Your task to perform on an android device: add a contact Image 0: 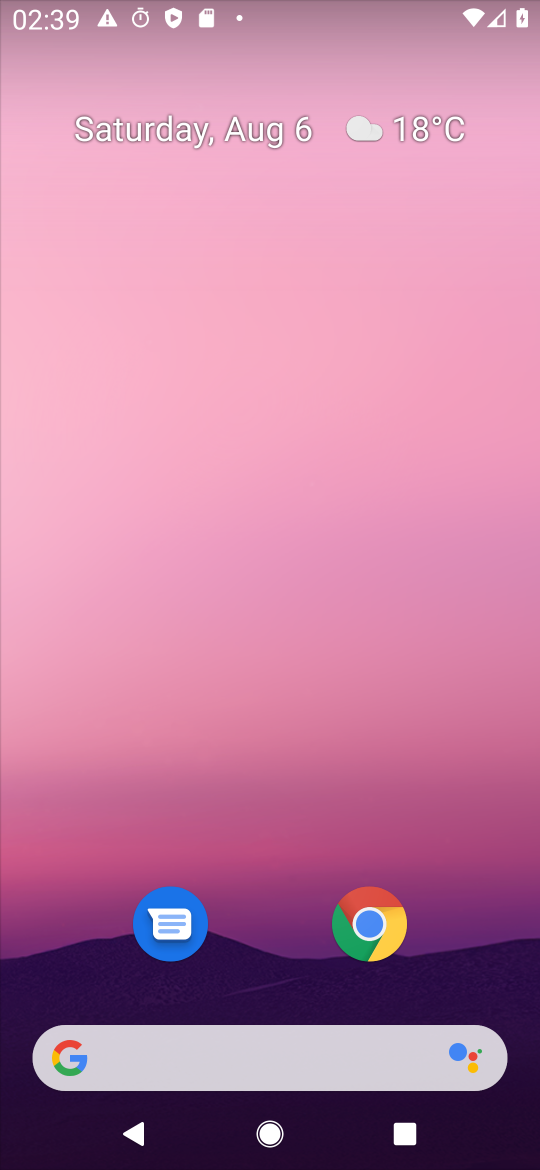
Step 0: drag from (275, 1051) to (285, 21)
Your task to perform on an android device: add a contact Image 1: 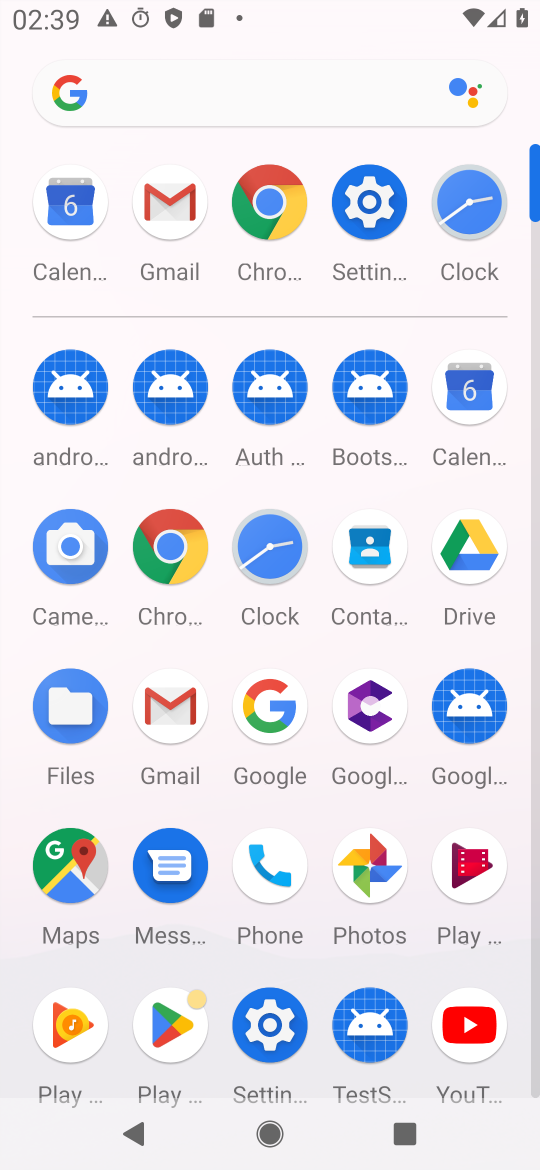
Step 1: click (384, 569)
Your task to perform on an android device: add a contact Image 2: 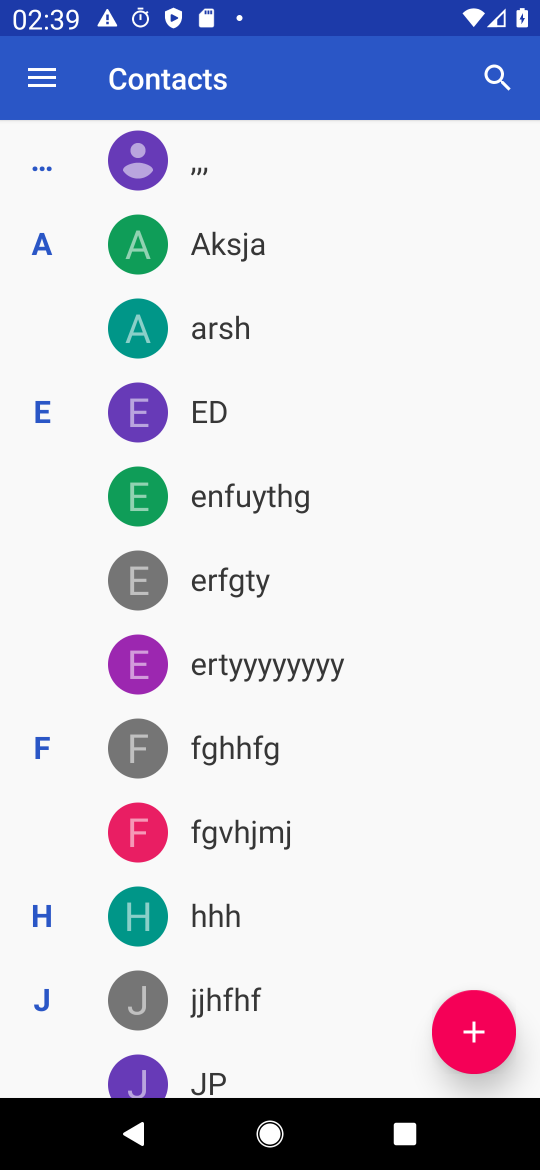
Step 2: click (467, 1032)
Your task to perform on an android device: add a contact Image 3: 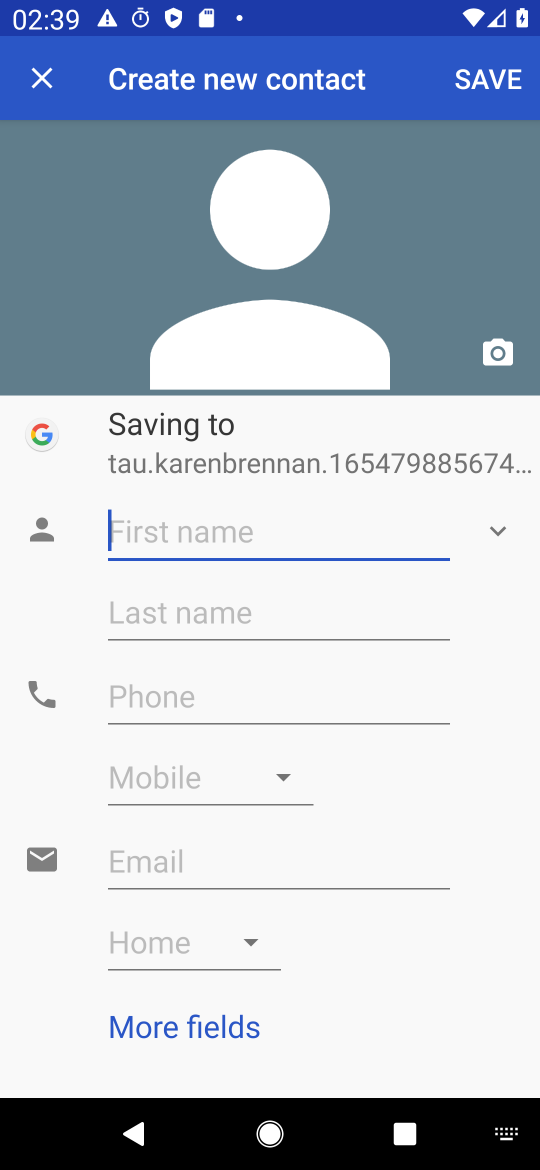
Step 3: type "jhgjfj"
Your task to perform on an android device: add a contact Image 4: 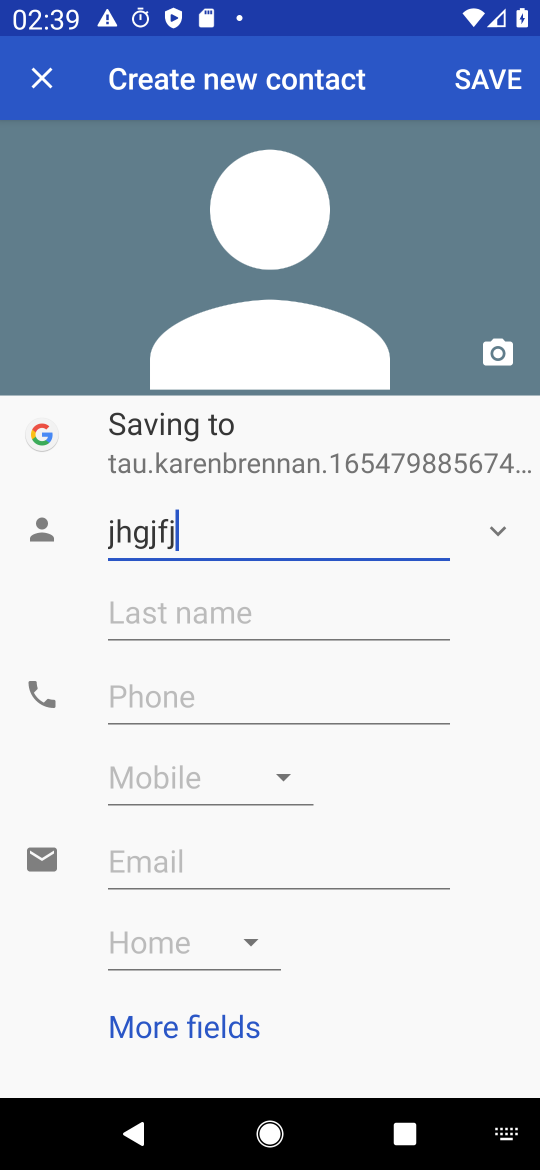
Step 4: click (240, 711)
Your task to perform on an android device: add a contact Image 5: 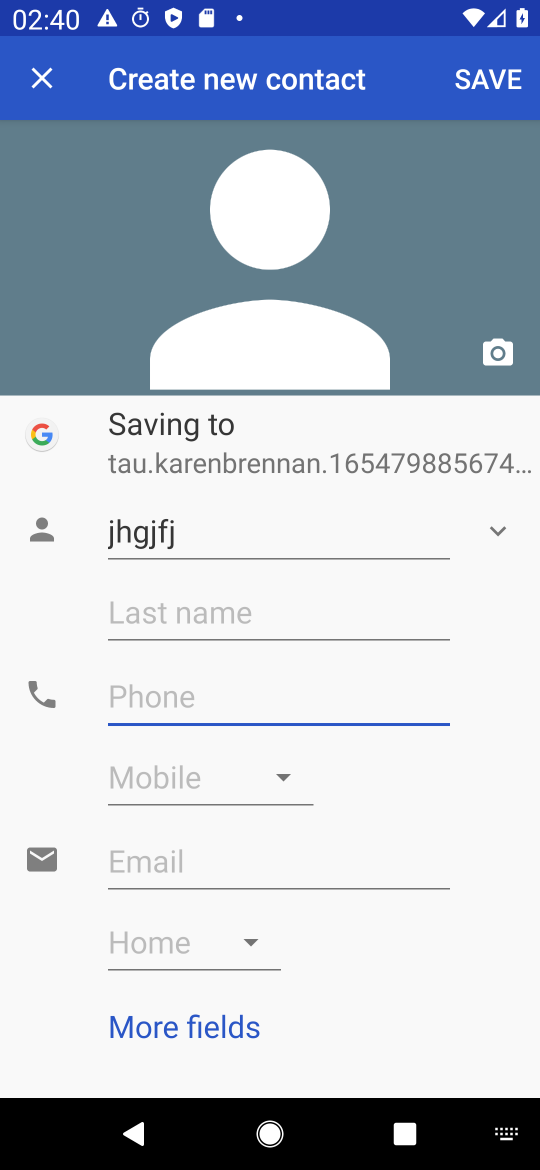
Step 5: type "9897678878"
Your task to perform on an android device: add a contact Image 6: 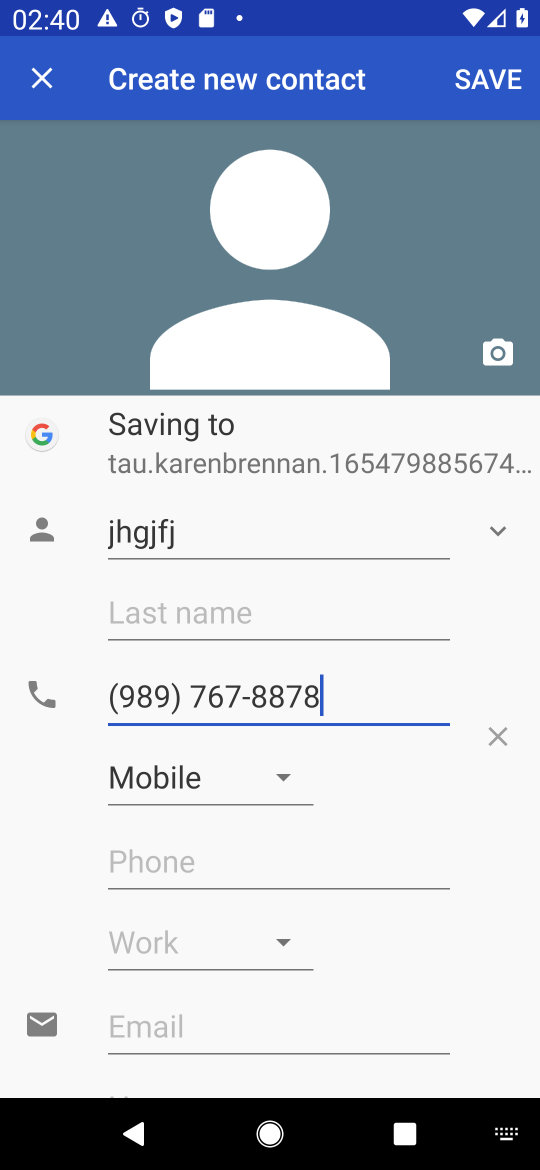
Step 6: click (492, 81)
Your task to perform on an android device: add a contact Image 7: 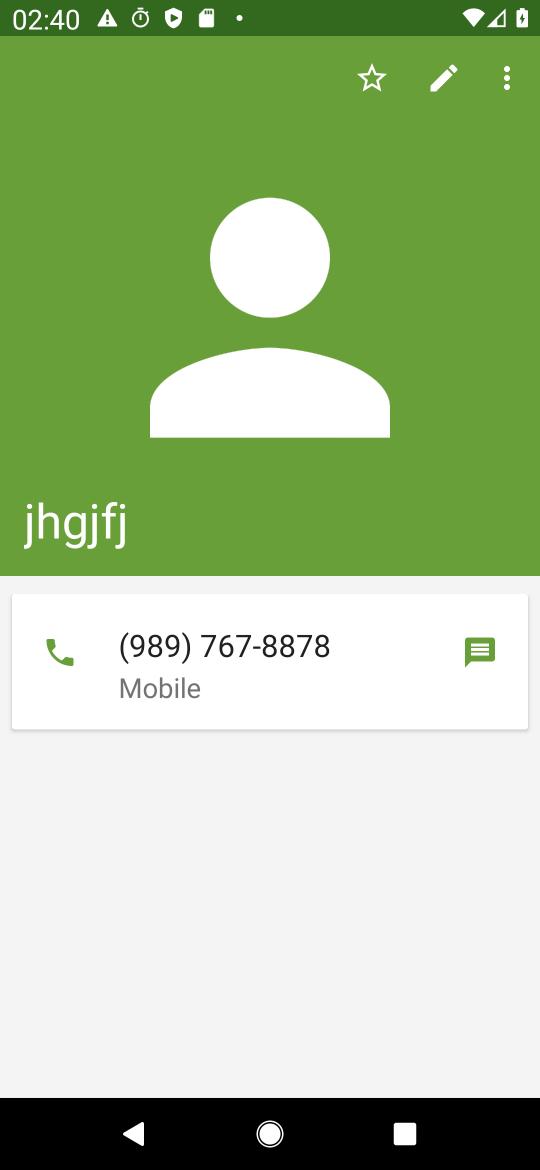
Step 7: task complete